Your task to perform on an android device: Show me productivity apps on the Play Store Image 0: 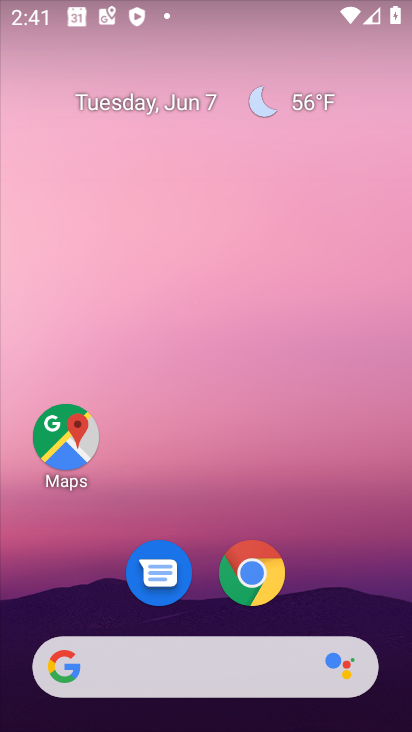
Step 0: drag from (340, 592) to (211, 2)
Your task to perform on an android device: Show me productivity apps on the Play Store Image 1: 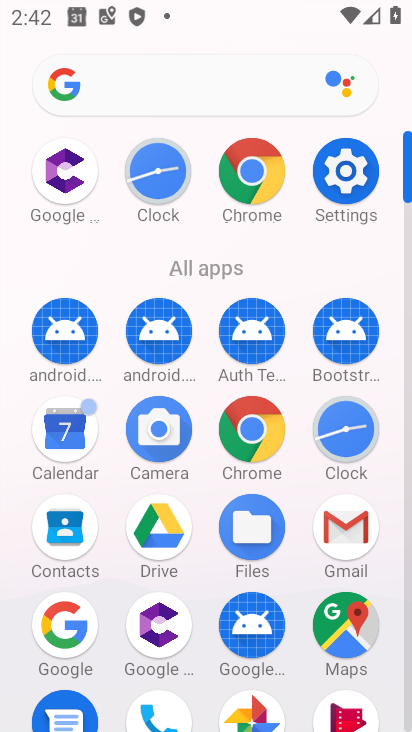
Step 1: drag from (116, 653) to (120, 196)
Your task to perform on an android device: Show me productivity apps on the Play Store Image 2: 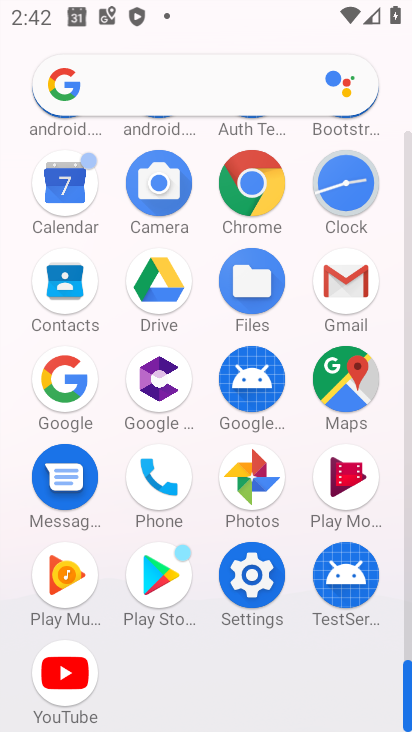
Step 2: click (158, 574)
Your task to perform on an android device: Show me productivity apps on the Play Store Image 3: 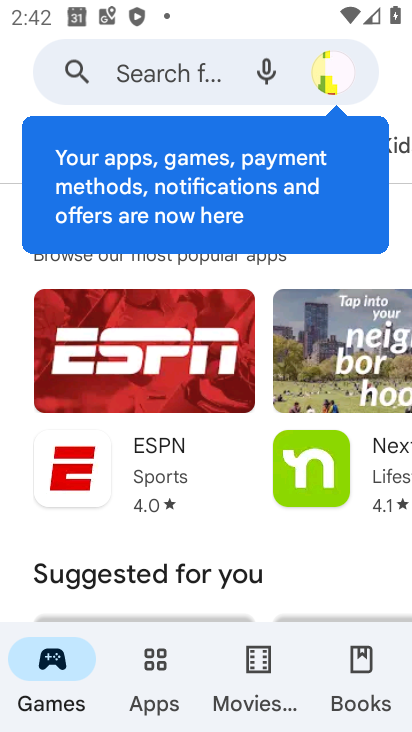
Step 3: click (173, 695)
Your task to perform on an android device: Show me productivity apps on the Play Store Image 4: 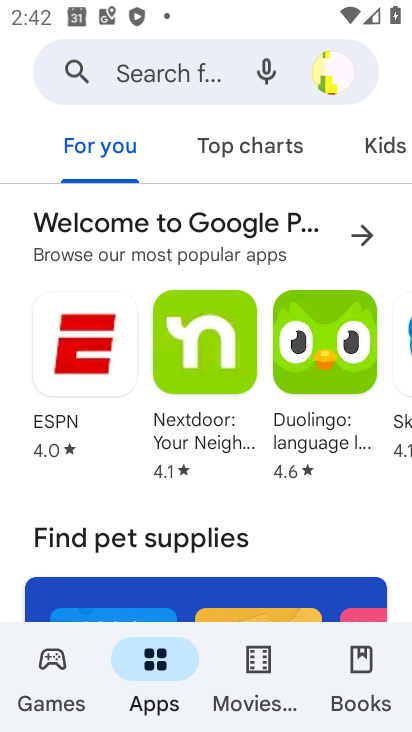
Step 4: drag from (342, 162) to (19, 184)
Your task to perform on an android device: Show me productivity apps on the Play Store Image 5: 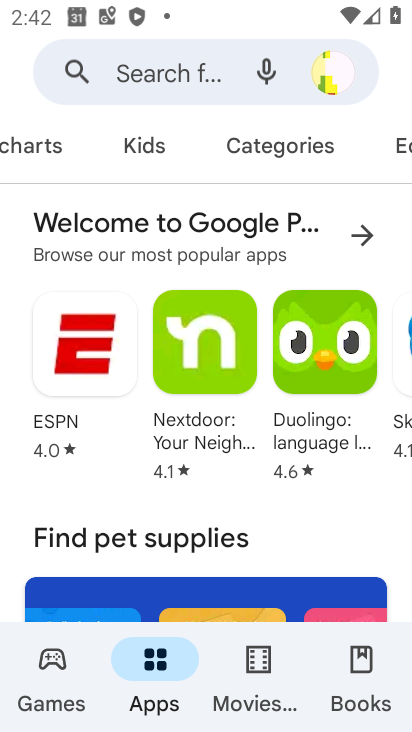
Step 5: click (307, 153)
Your task to perform on an android device: Show me productivity apps on the Play Store Image 6: 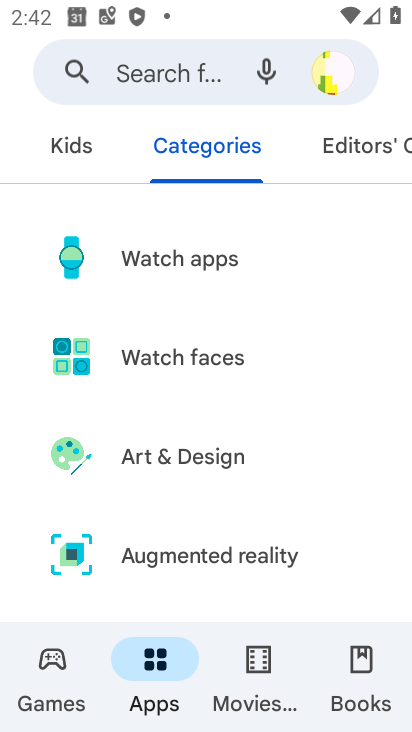
Step 6: drag from (218, 523) to (182, 187)
Your task to perform on an android device: Show me productivity apps on the Play Store Image 7: 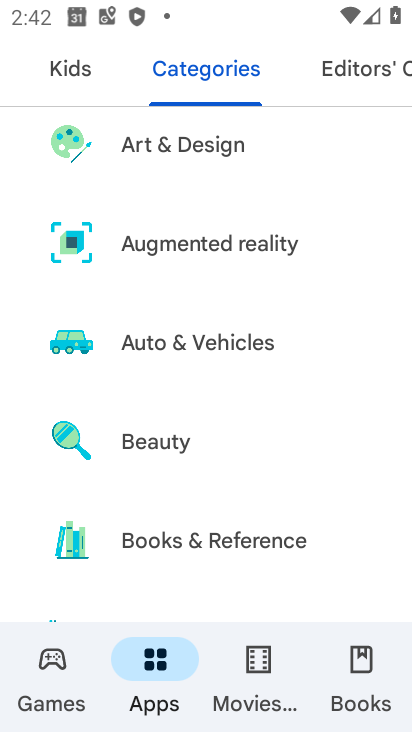
Step 7: drag from (198, 546) to (196, 115)
Your task to perform on an android device: Show me productivity apps on the Play Store Image 8: 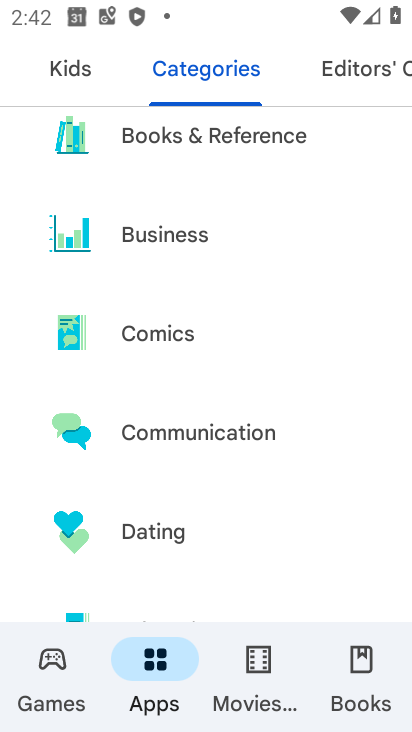
Step 8: drag from (187, 560) to (192, 141)
Your task to perform on an android device: Show me productivity apps on the Play Store Image 9: 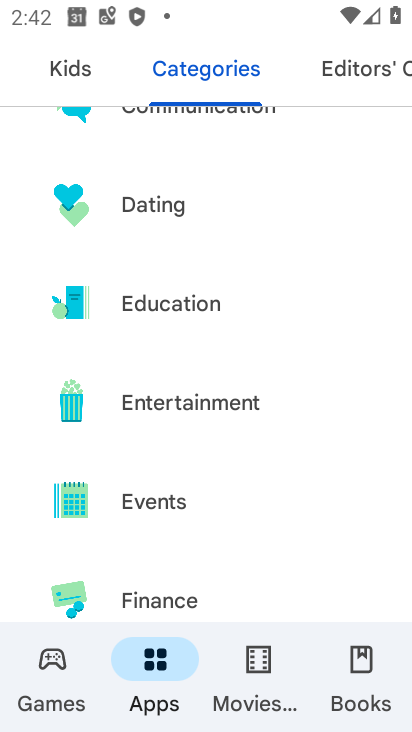
Step 9: drag from (245, 524) to (236, 137)
Your task to perform on an android device: Show me productivity apps on the Play Store Image 10: 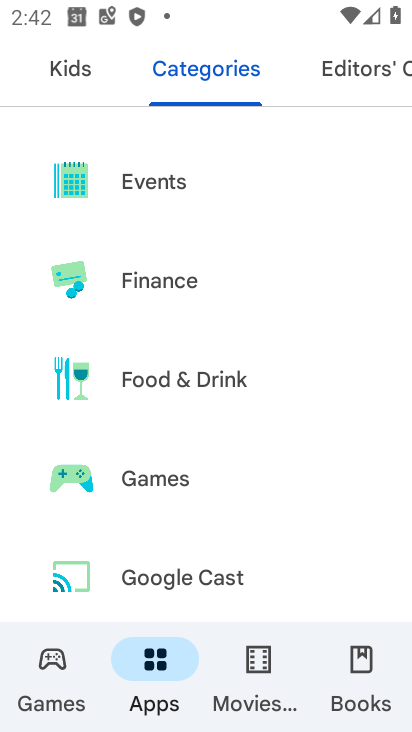
Step 10: drag from (253, 589) to (231, 229)
Your task to perform on an android device: Show me productivity apps on the Play Store Image 11: 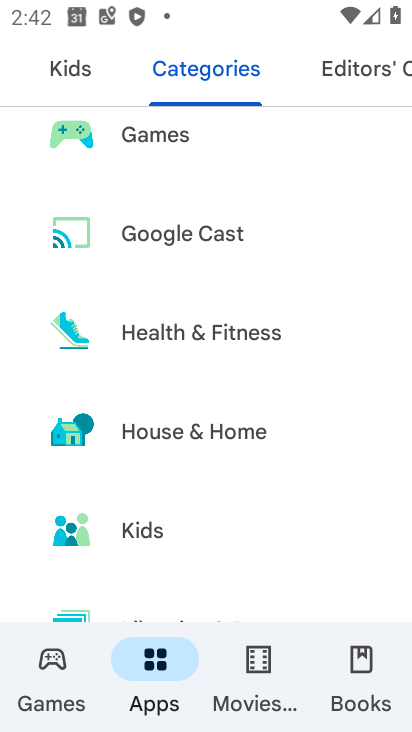
Step 11: drag from (256, 578) to (242, 215)
Your task to perform on an android device: Show me productivity apps on the Play Store Image 12: 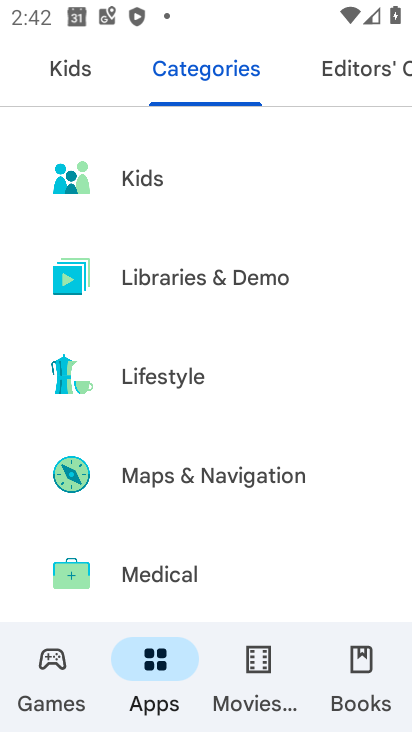
Step 12: drag from (188, 568) to (163, 166)
Your task to perform on an android device: Show me productivity apps on the Play Store Image 13: 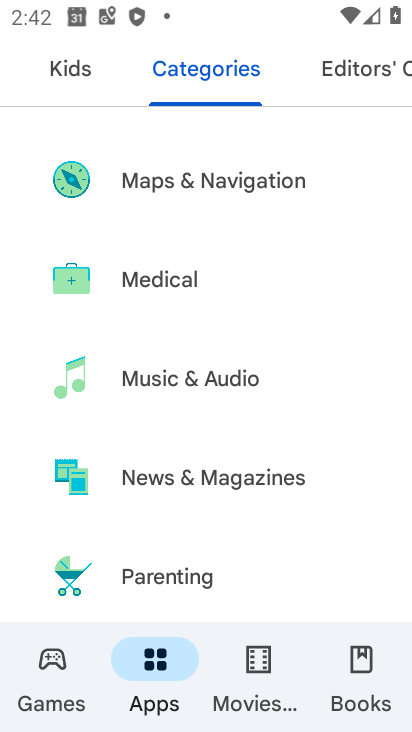
Step 13: drag from (203, 514) to (191, 108)
Your task to perform on an android device: Show me productivity apps on the Play Store Image 14: 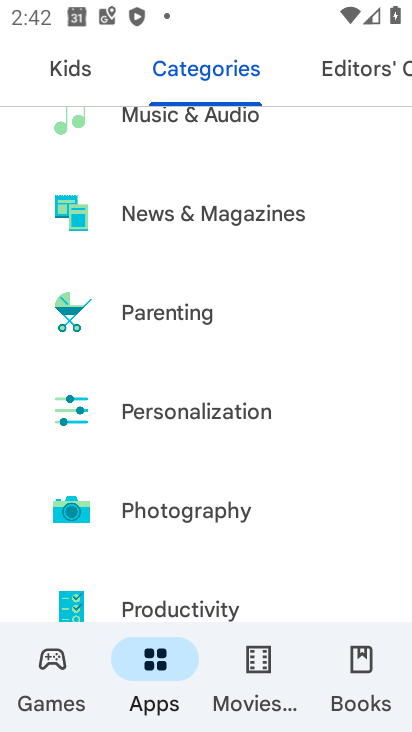
Step 14: click (192, 607)
Your task to perform on an android device: Show me productivity apps on the Play Store Image 15: 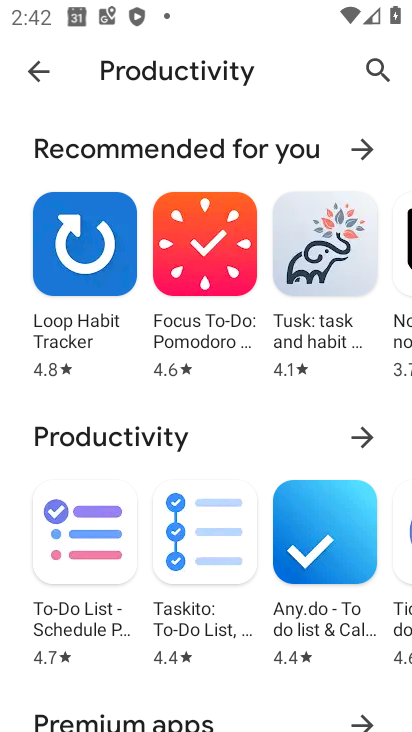
Step 15: task complete